Your task to perform on an android device: Open sound settings Image 0: 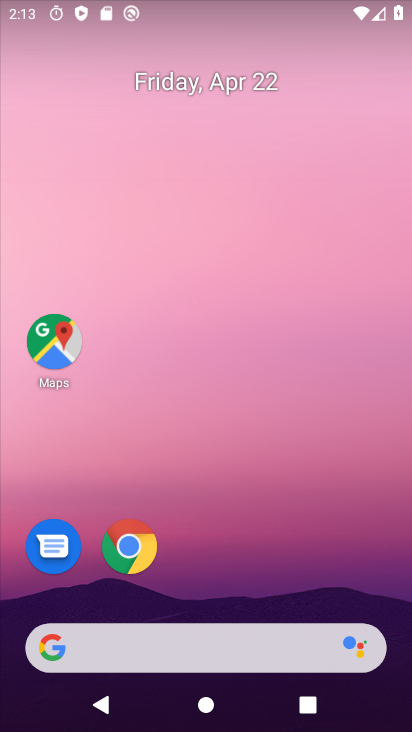
Step 0: click (201, 162)
Your task to perform on an android device: Open sound settings Image 1: 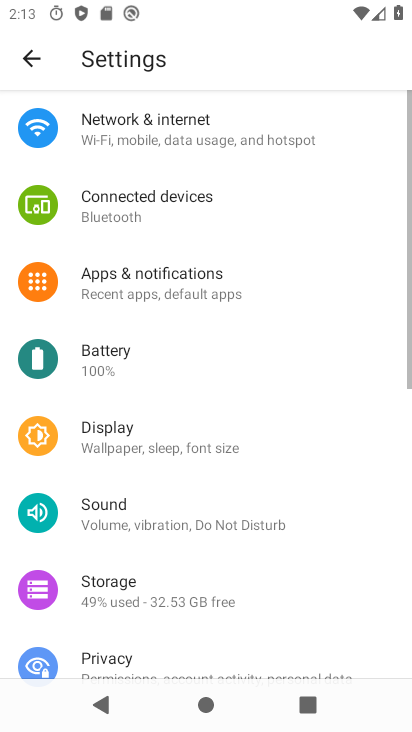
Step 1: click (147, 517)
Your task to perform on an android device: Open sound settings Image 2: 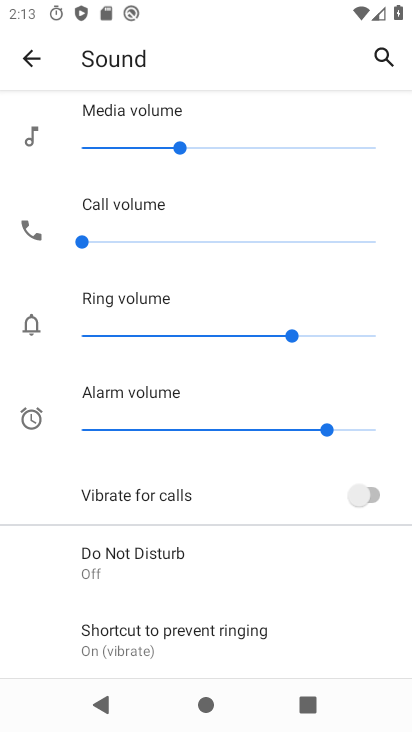
Step 2: task complete